Your task to perform on an android device: open app "Life360: Find Family & Friends" (install if not already installed) and enter user name: "gusts@gmail.com" and password: "assurers" Image 0: 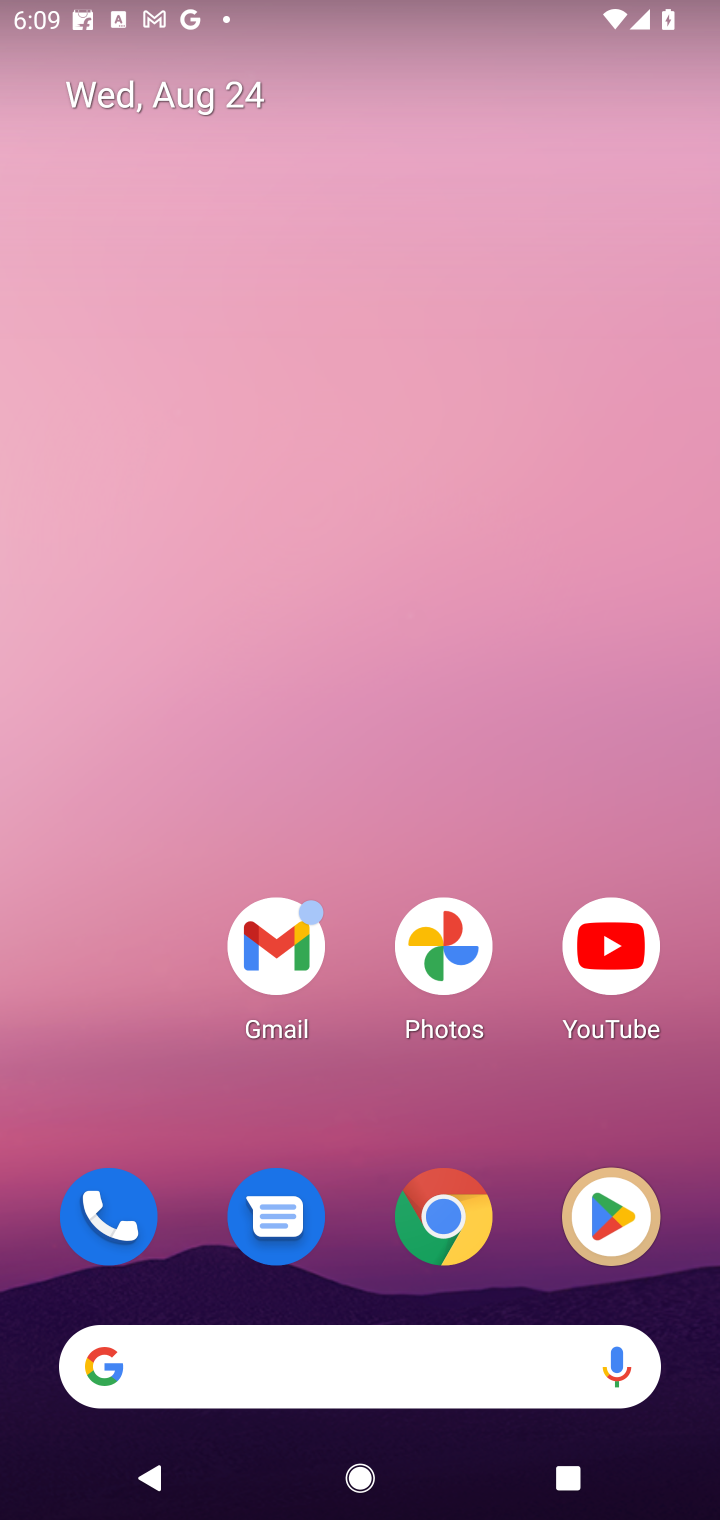
Step 0: click (615, 1203)
Your task to perform on an android device: open app "Life360: Find Family & Friends" (install if not already installed) and enter user name: "gusts@gmail.com" and password: "assurers" Image 1: 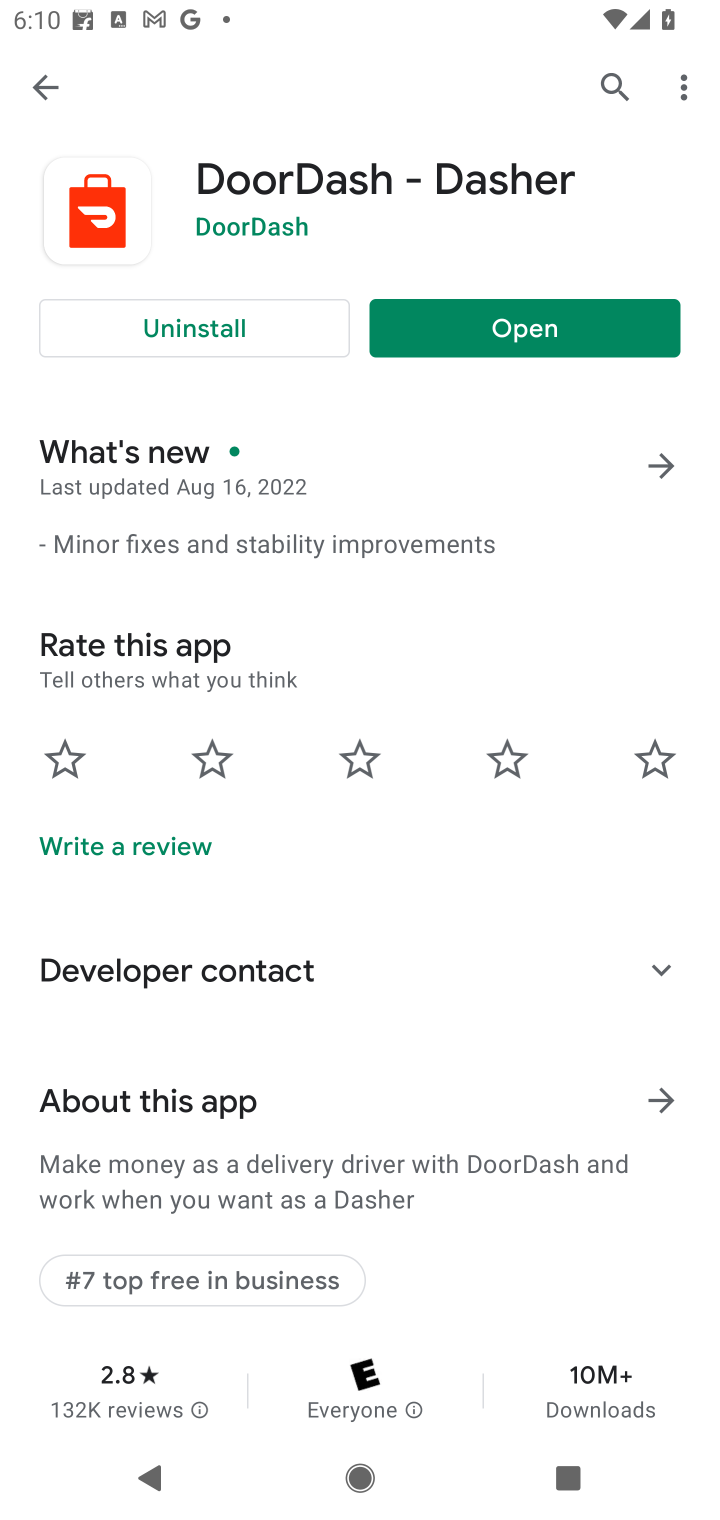
Step 1: click (470, 318)
Your task to perform on an android device: open app "Life360: Find Family & Friends" (install if not already installed) and enter user name: "gusts@gmail.com" and password: "assurers" Image 2: 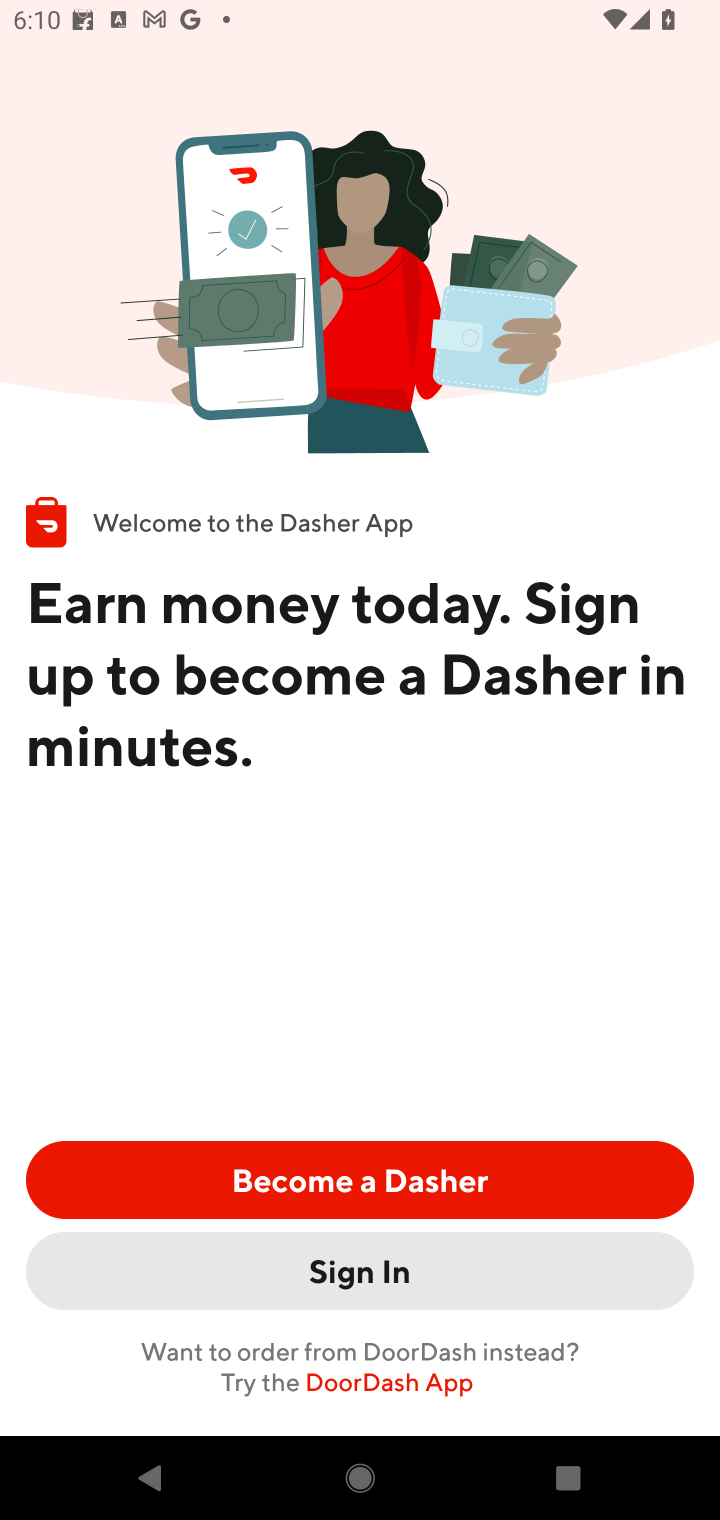
Step 2: press home button
Your task to perform on an android device: open app "Life360: Find Family & Friends" (install if not already installed) and enter user name: "gusts@gmail.com" and password: "assurers" Image 3: 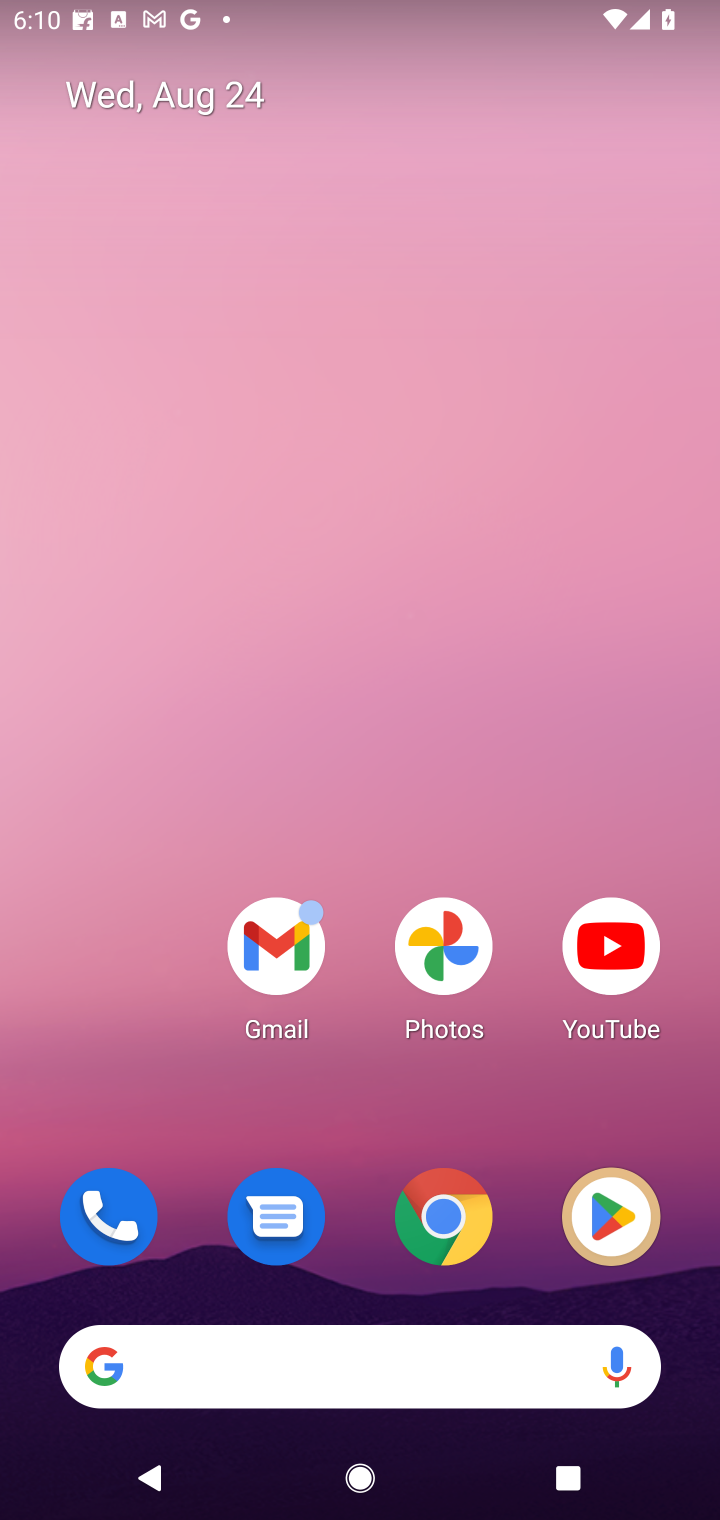
Step 3: click (637, 1197)
Your task to perform on an android device: open app "Life360: Find Family & Friends" (install if not already installed) and enter user name: "gusts@gmail.com" and password: "assurers" Image 4: 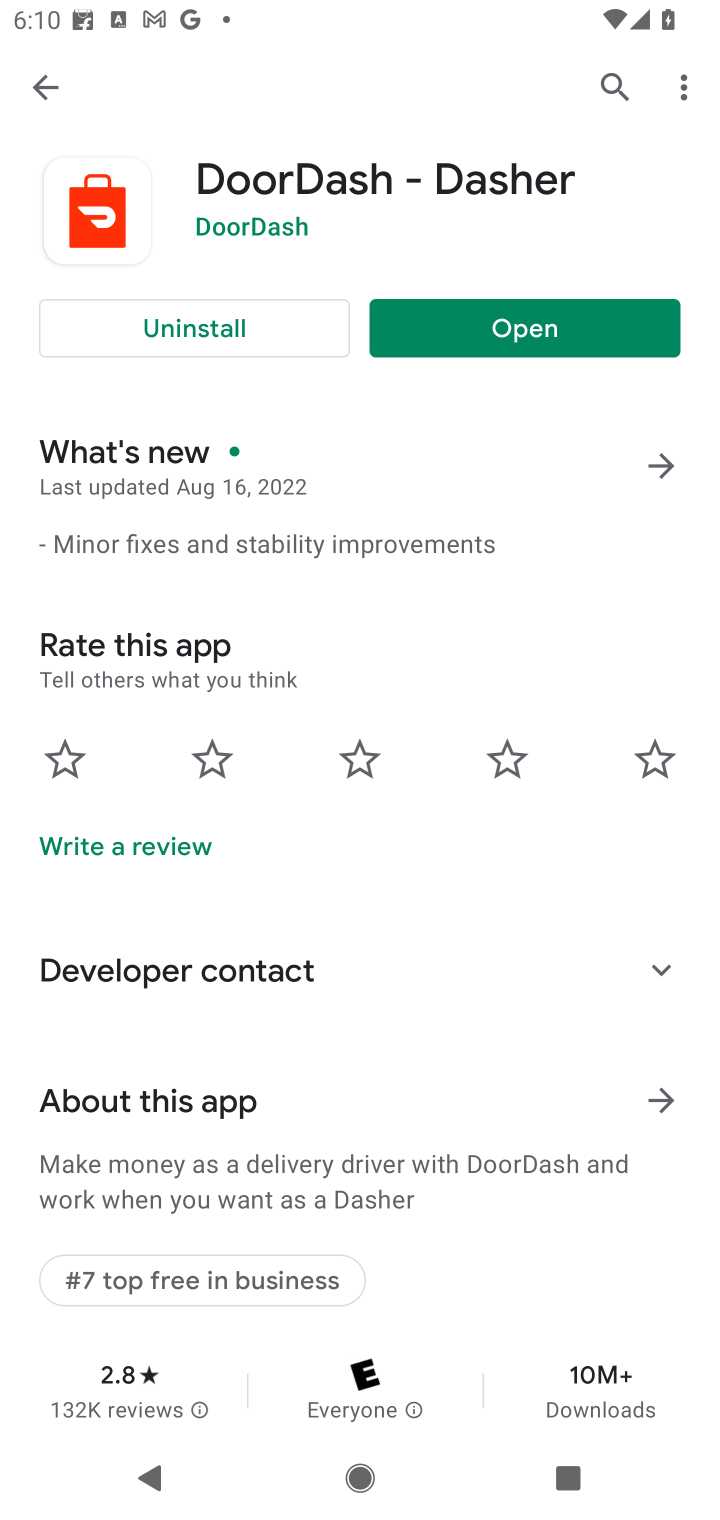
Step 4: click (609, 87)
Your task to perform on an android device: open app "Life360: Find Family & Friends" (install if not already installed) and enter user name: "gusts@gmail.com" and password: "assurers" Image 5: 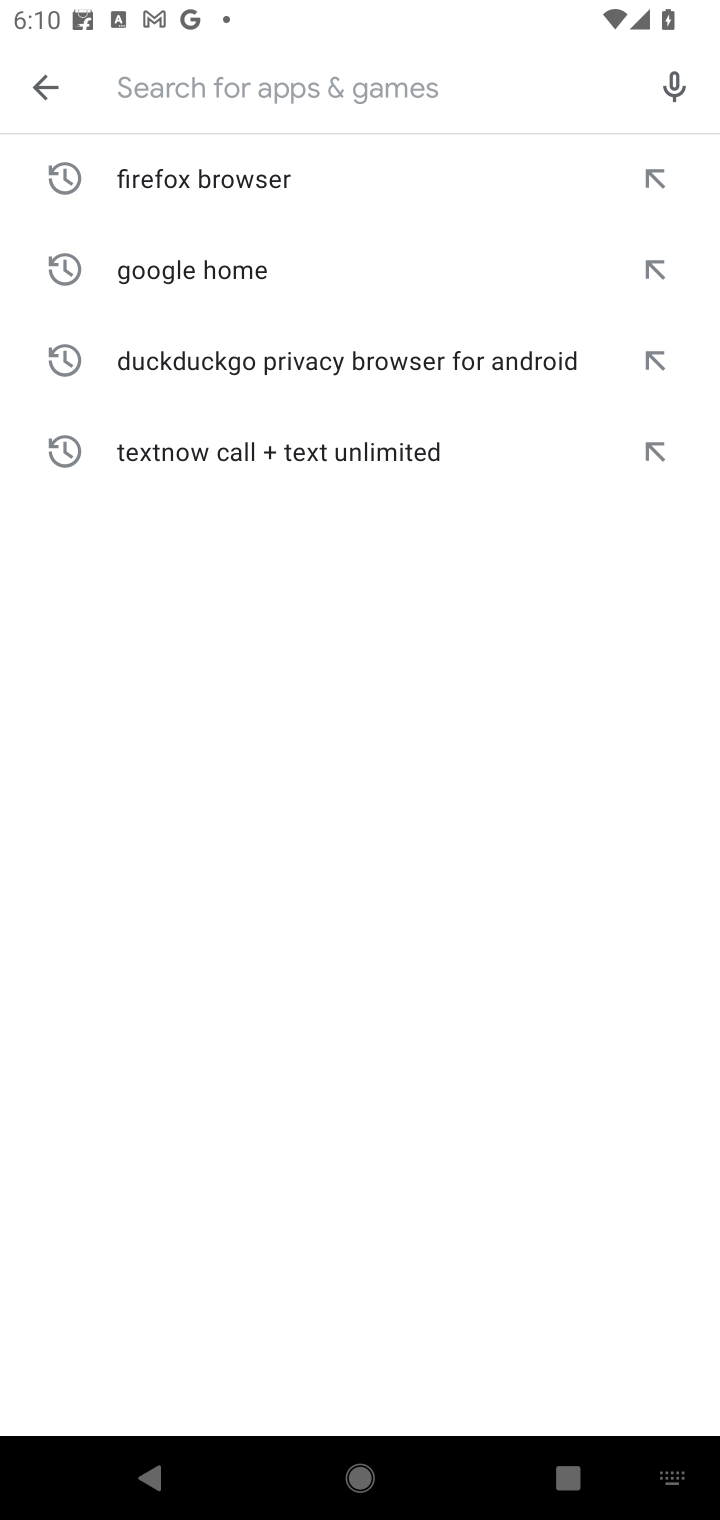
Step 5: type "Life360: Find Family & Friend"
Your task to perform on an android device: open app "Life360: Find Family & Friends" (install if not already installed) and enter user name: "gusts@gmail.com" and password: "assurers" Image 6: 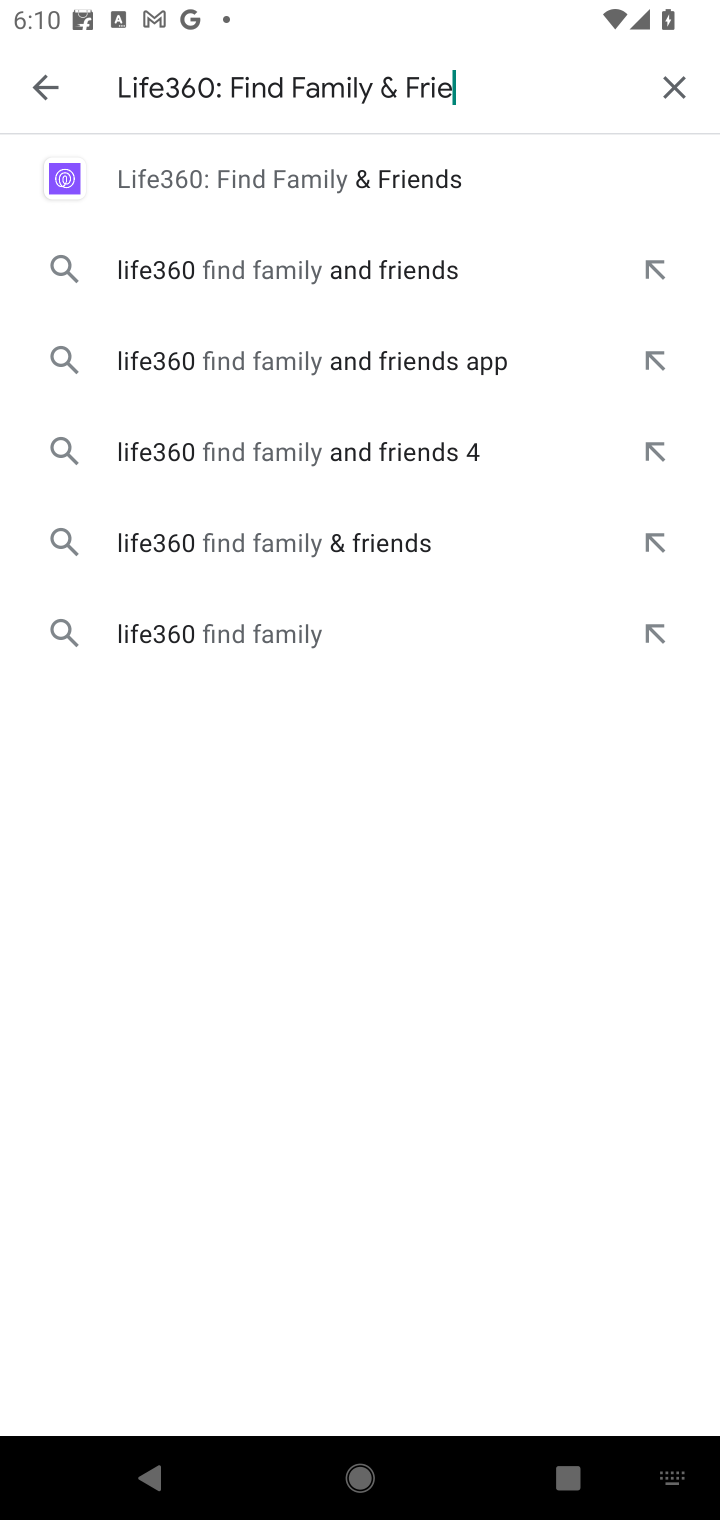
Step 6: type ""
Your task to perform on an android device: open app "Life360: Find Family & Friends" (install if not already installed) and enter user name: "gusts@gmail.com" and password: "assurers" Image 7: 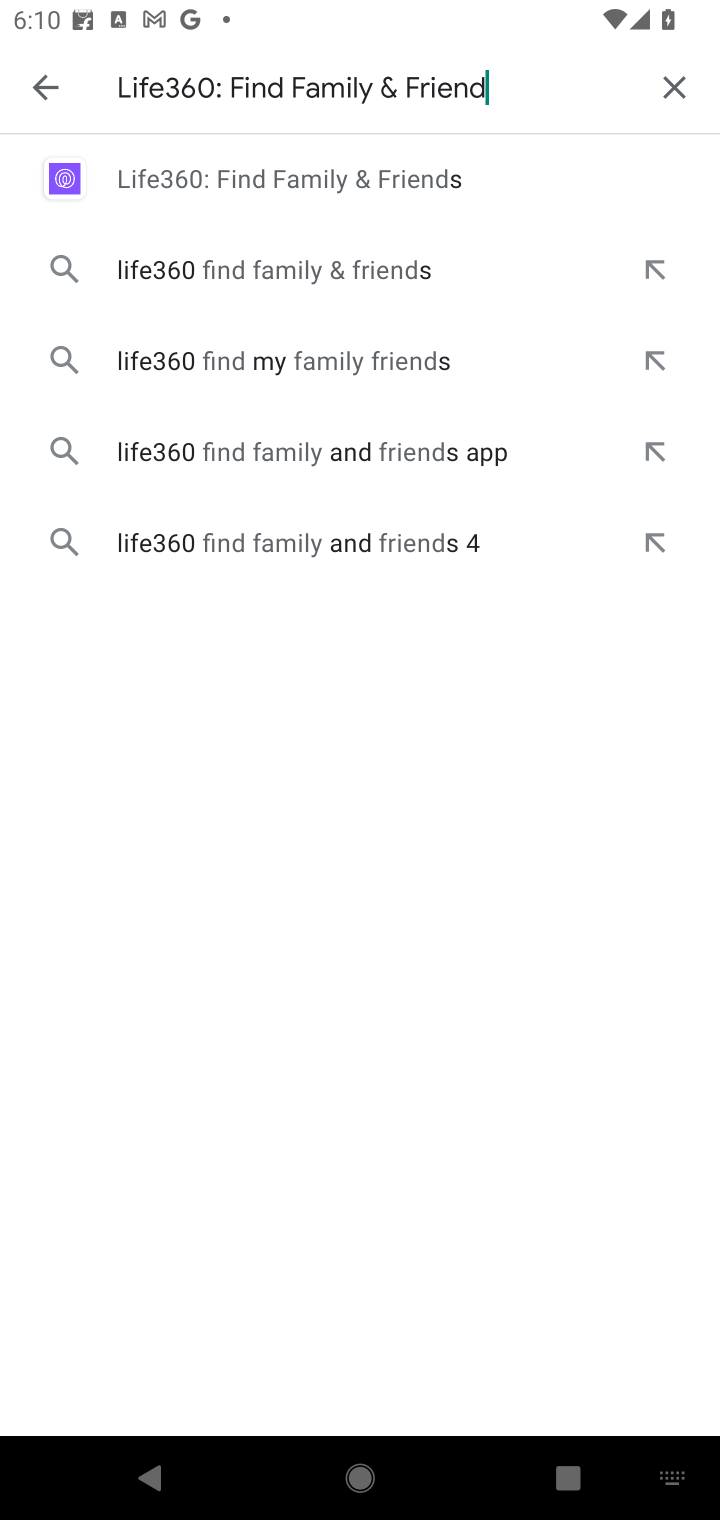
Step 7: click (283, 188)
Your task to perform on an android device: open app "Life360: Find Family & Friends" (install if not already installed) and enter user name: "gusts@gmail.com" and password: "assurers" Image 8: 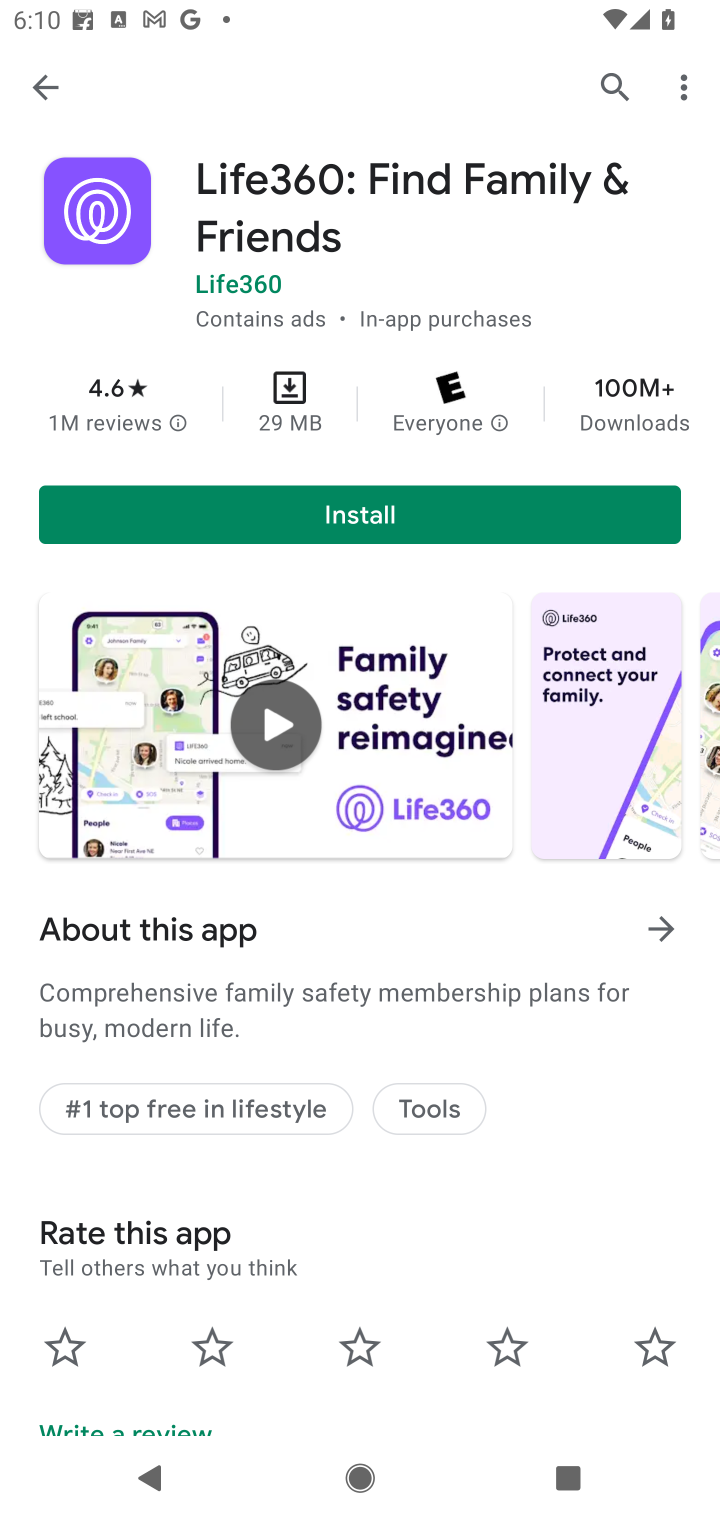
Step 8: click (361, 511)
Your task to perform on an android device: open app "Life360: Find Family & Friends" (install if not already installed) and enter user name: "gusts@gmail.com" and password: "assurers" Image 9: 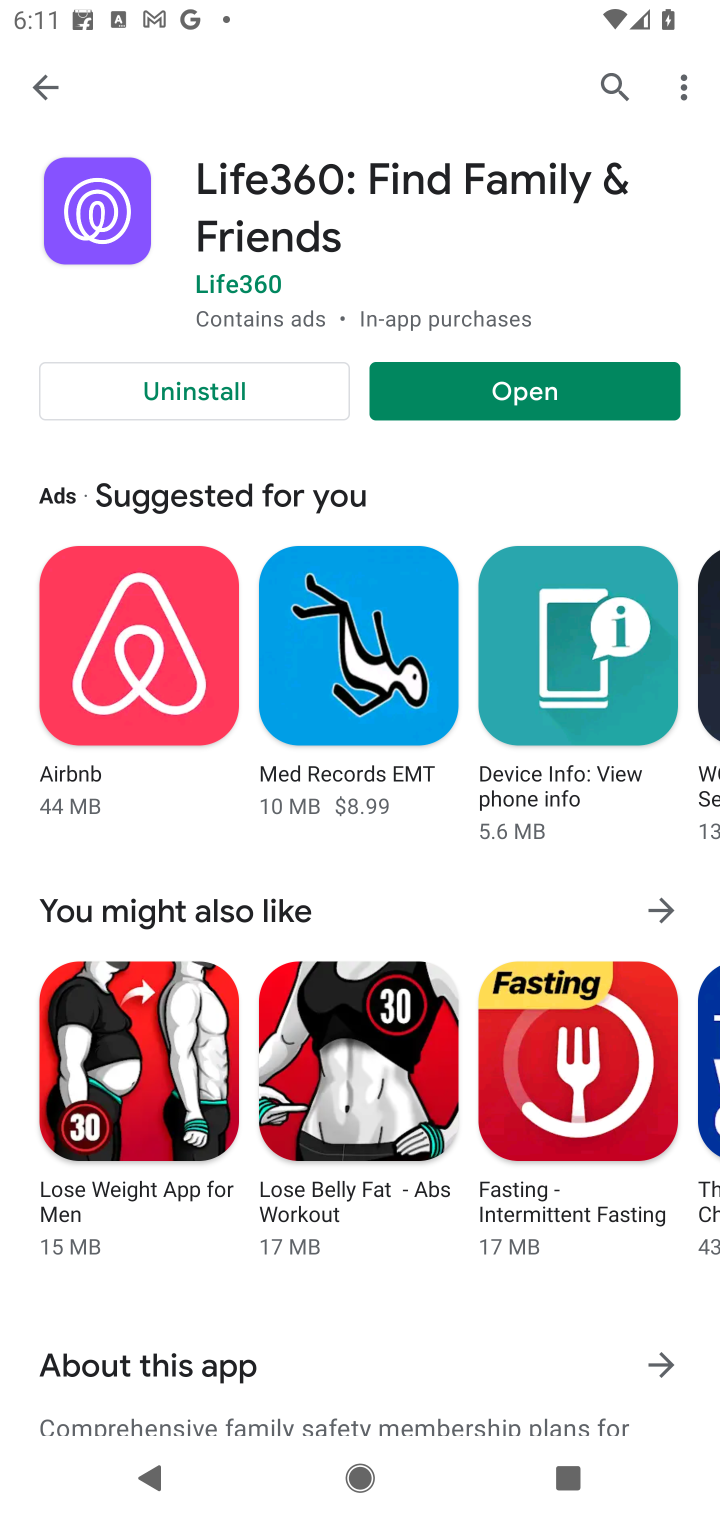
Step 9: click (501, 393)
Your task to perform on an android device: open app "Life360: Find Family & Friends" (install if not already installed) and enter user name: "gusts@gmail.com" and password: "assurers" Image 10: 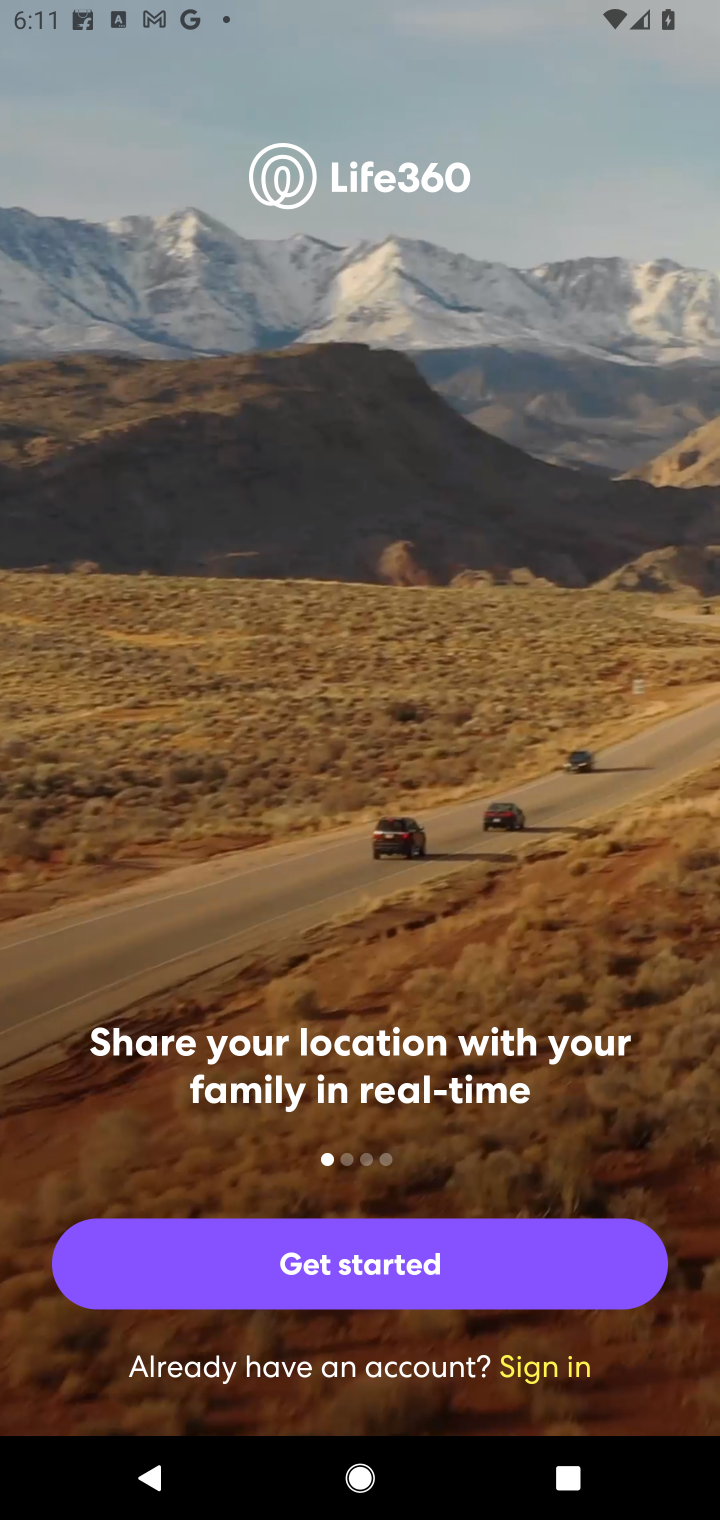
Step 10: task complete